Your task to perform on an android device: check out phone information Image 0: 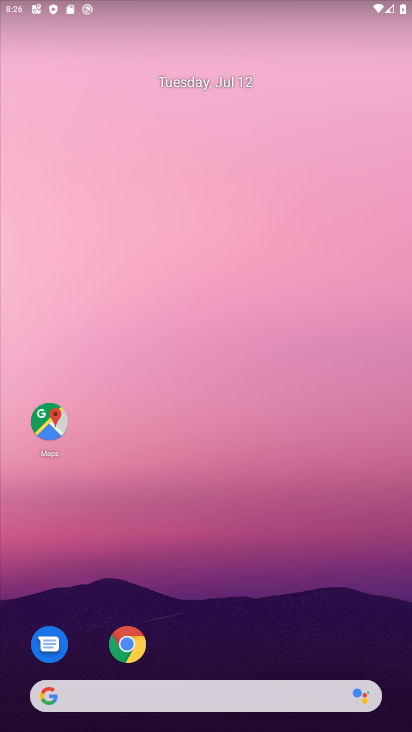
Step 0: drag from (190, 650) to (295, 305)
Your task to perform on an android device: check out phone information Image 1: 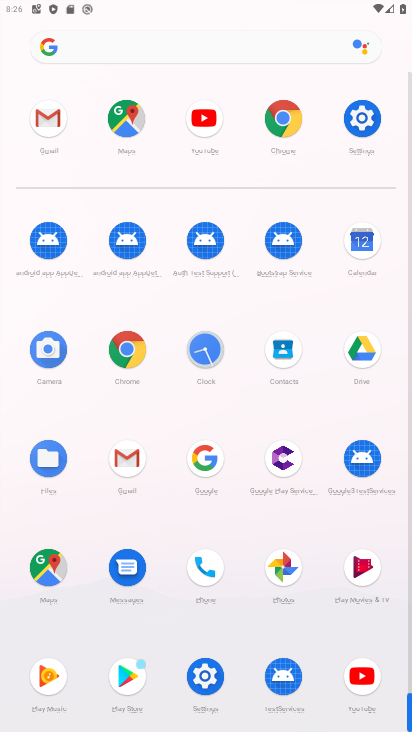
Step 1: click (359, 100)
Your task to perform on an android device: check out phone information Image 2: 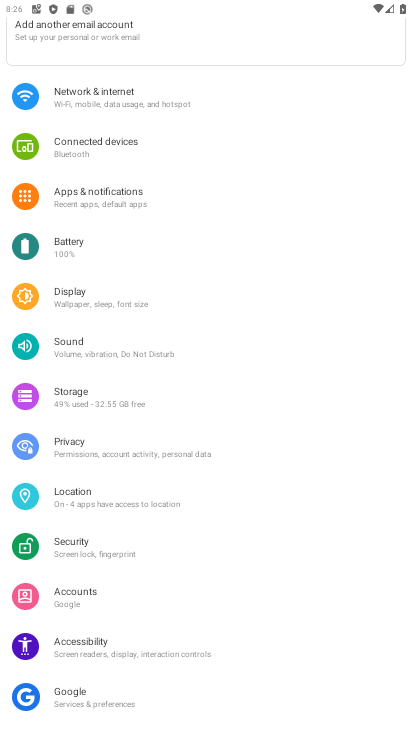
Step 2: drag from (116, 684) to (212, 184)
Your task to perform on an android device: check out phone information Image 3: 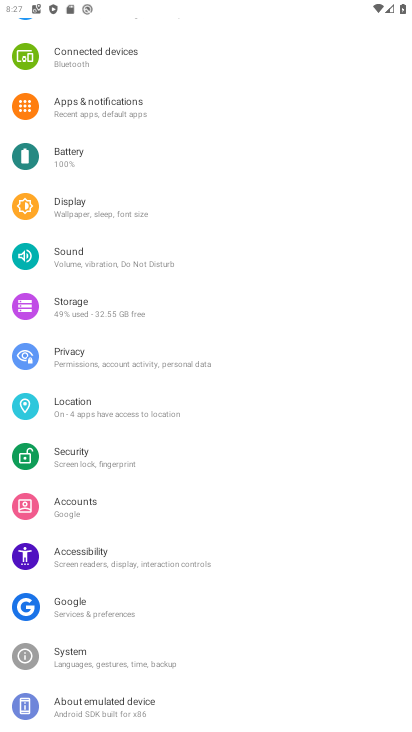
Step 3: drag from (210, 544) to (219, 175)
Your task to perform on an android device: check out phone information Image 4: 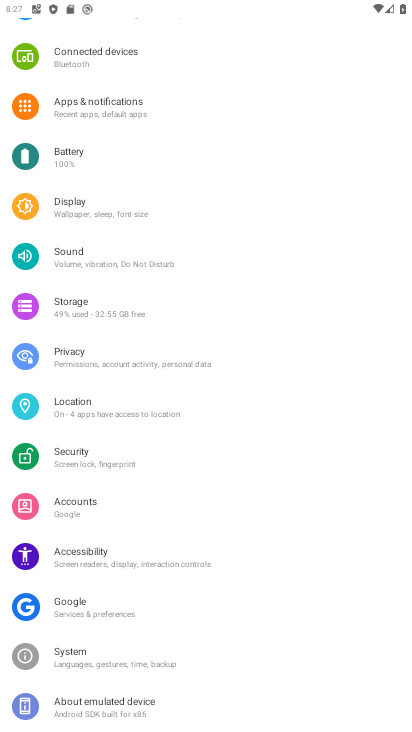
Step 4: click (130, 701)
Your task to perform on an android device: check out phone information Image 5: 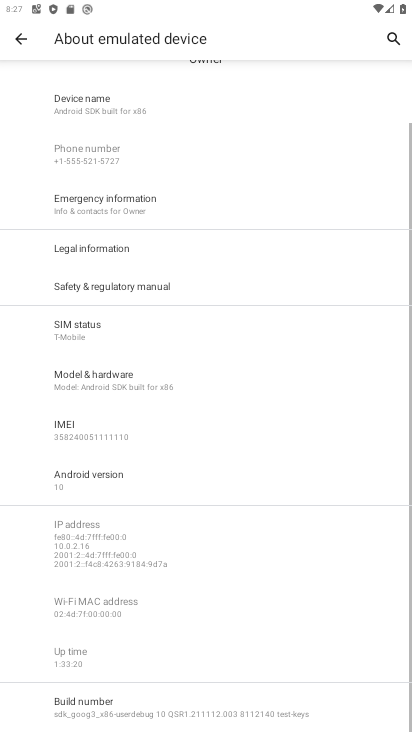
Step 5: task complete